Your task to perform on an android device: allow notifications from all sites in the chrome app Image 0: 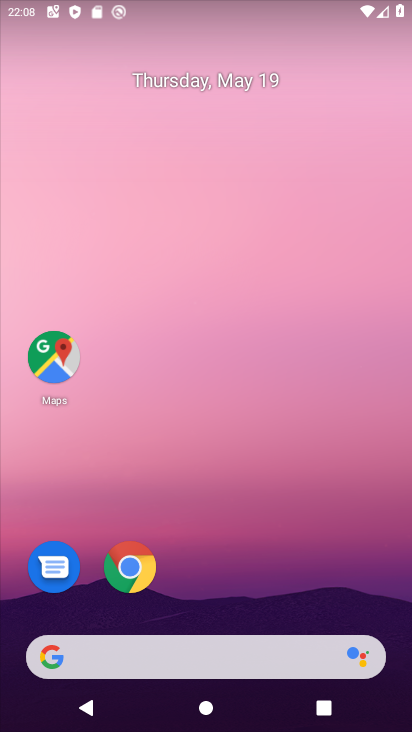
Step 0: click (127, 558)
Your task to perform on an android device: allow notifications from all sites in the chrome app Image 1: 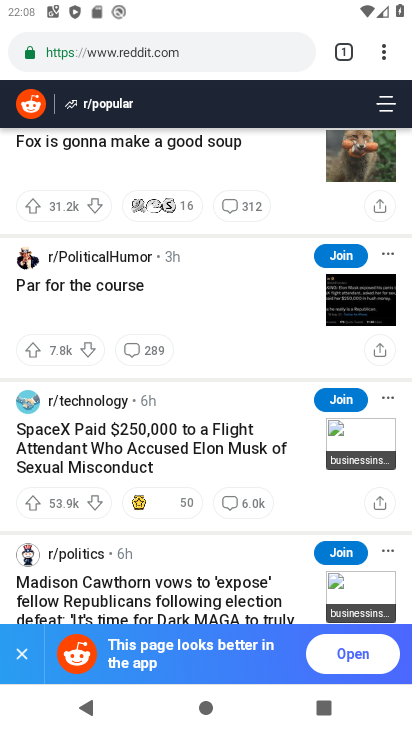
Step 1: click (388, 49)
Your task to perform on an android device: allow notifications from all sites in the chrome app Image 2: 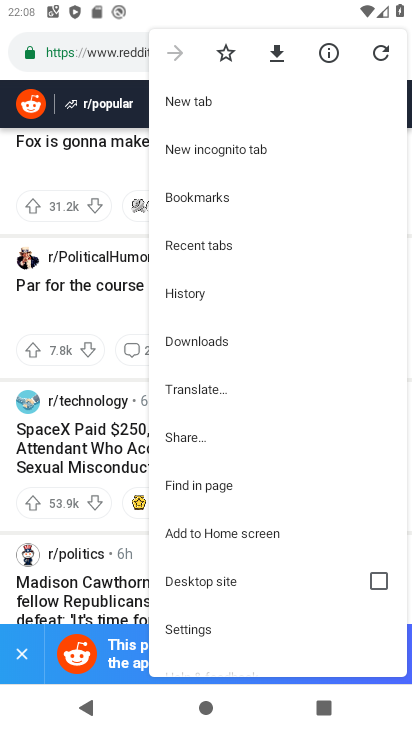
Step 2: click (219, 629)
Your task to perform on an android device: allow notifications from all sites in the chrome app Image 3: 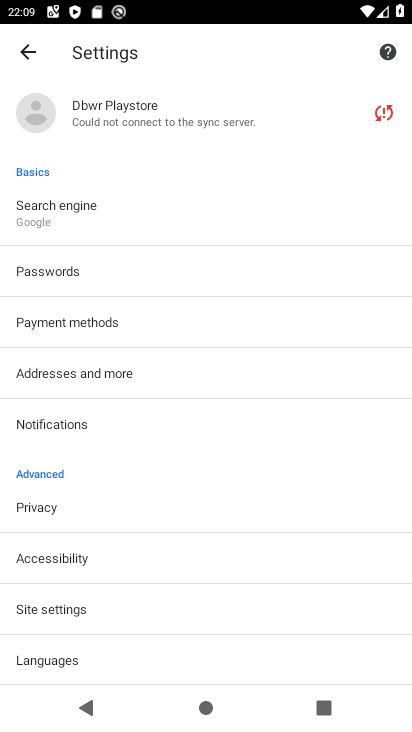
Step 3: click (95, 608)
Your task to perform on an android device: allow notifications from all sites in the chrome app Image 4: 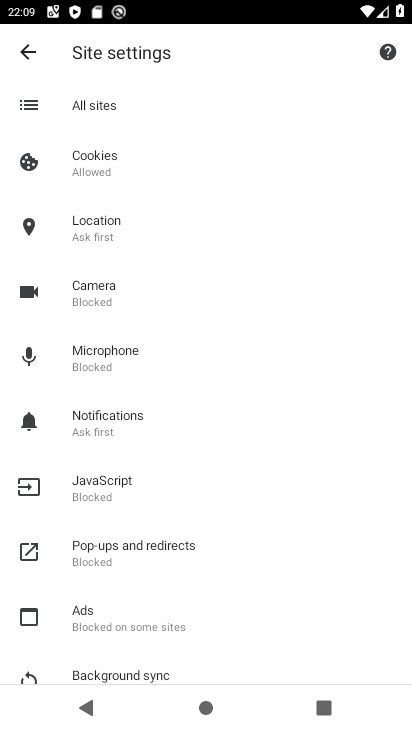
Step 4: click (118, 103)
Your task to perform on an android device: allow notifications from all sites in the chrome app Image 5: 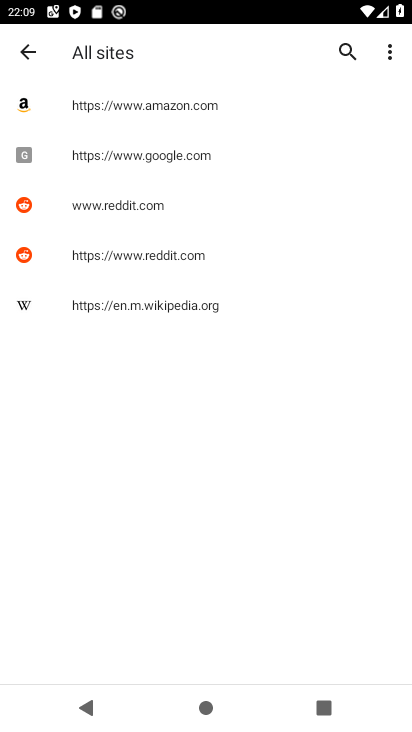
Step 5: click (106, 105)
Your task to perform on an android device: allow notifications from all sites in the chrome app Image 6: 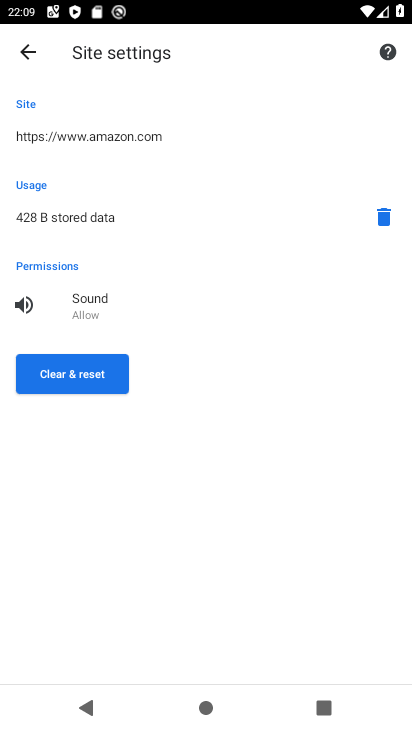
Step 6: click (39, 50)
Your task to perform on an android device: allow notifications from all sites in the chrome app Image 7: 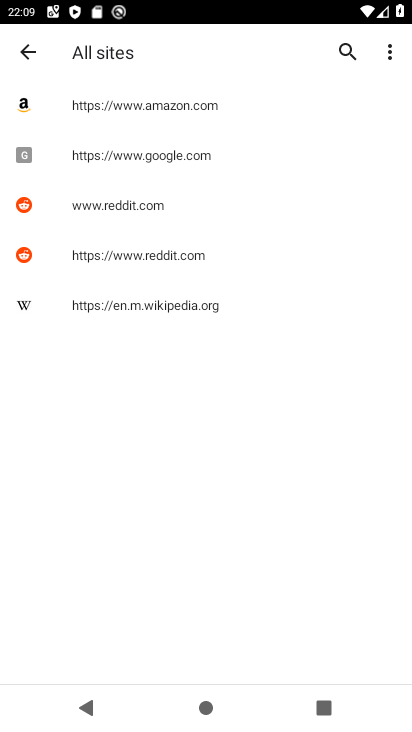
Step 7: click (84, 257)
Your task to perform on an android device: allow notifications from all sites in the chrome app Image 8: 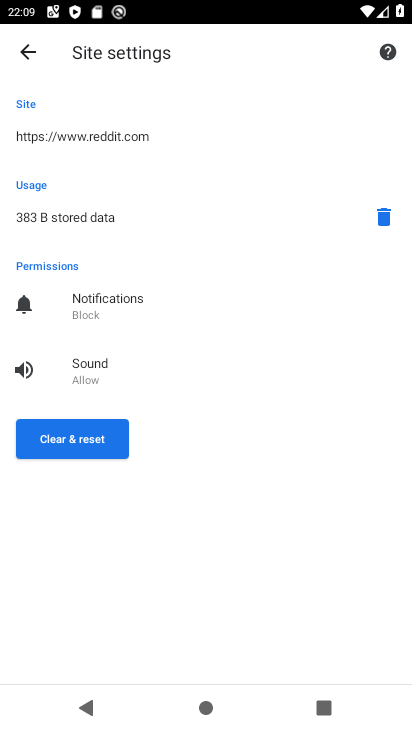
Step 8: click (16, 46)
Your task to perform on an android device: allow notifications from all sites in the chrome app Image 9: 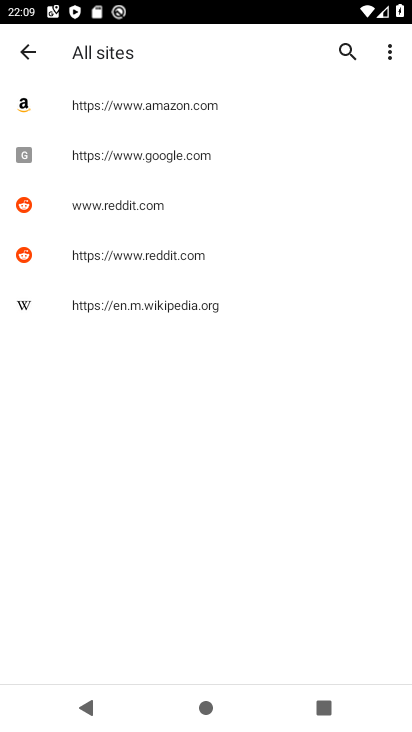
Step 9: task complete